Your task to perform on an android device: open app "Flipkart Online Shopping App" (install if not already installed) and enter user name: "fostered@gmail.com" and password: "negotiated" Image 0: 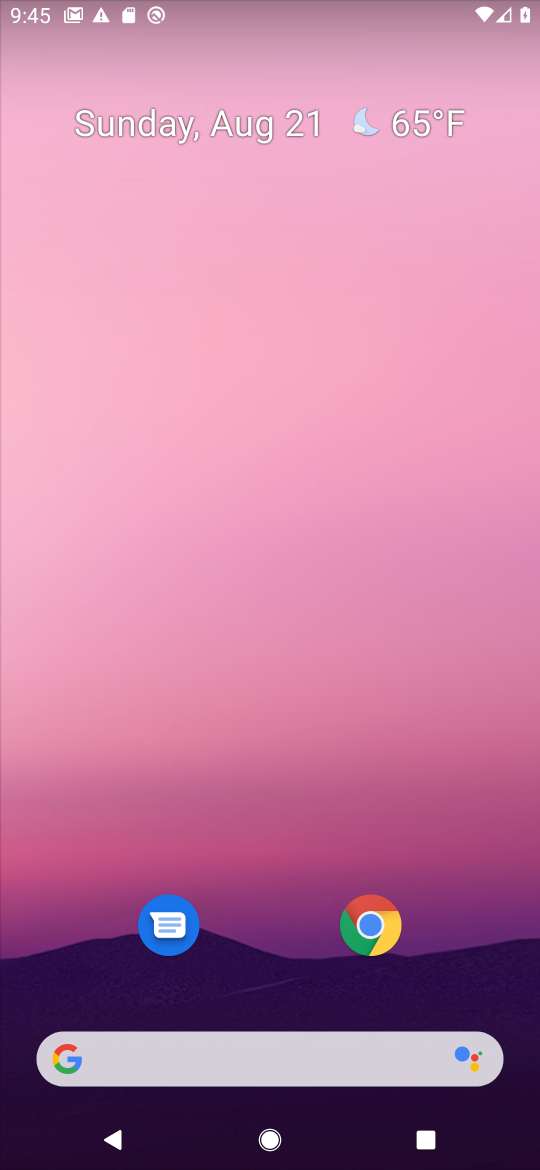
Step 0: drag from (289, 953) to (334, 79)
Your task to perform on an android device: open app "Flipkart Online Shopping App" (install if not already installed) and enter user name: "fostered@gmail.com" and password: "negotiated" Image 1: 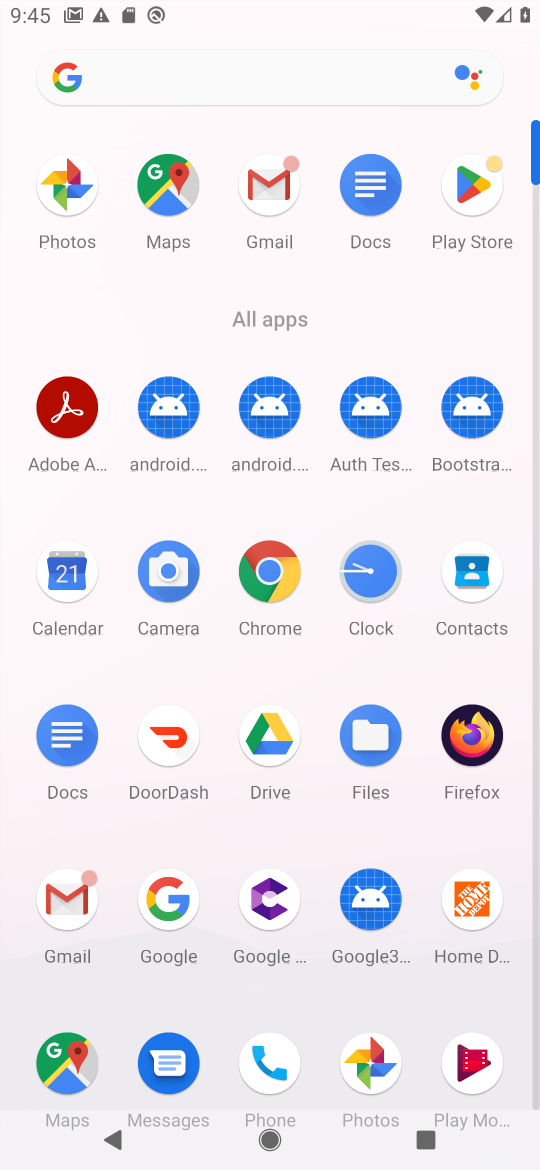
Step 1: click (475, 195)
Your task to perform on an android device: open app "Flipkart Online Shopping App" (install if not already installed) and enter user name: "fostered@gmail.com" and password: "negotiated" Image 2: 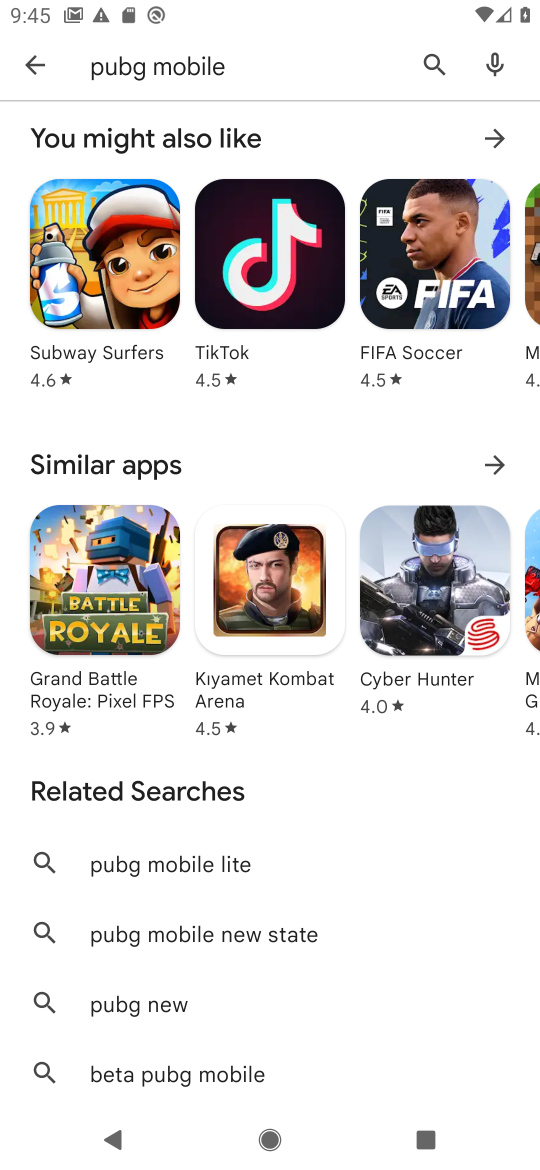
Step 2: click (434, 57)
Your task to perform on an android device: open app "Flipkart Online Shopping App" (install if not already installed) and enter user name: "fostered@gmail.com" and password: "negotiated" Image 3: 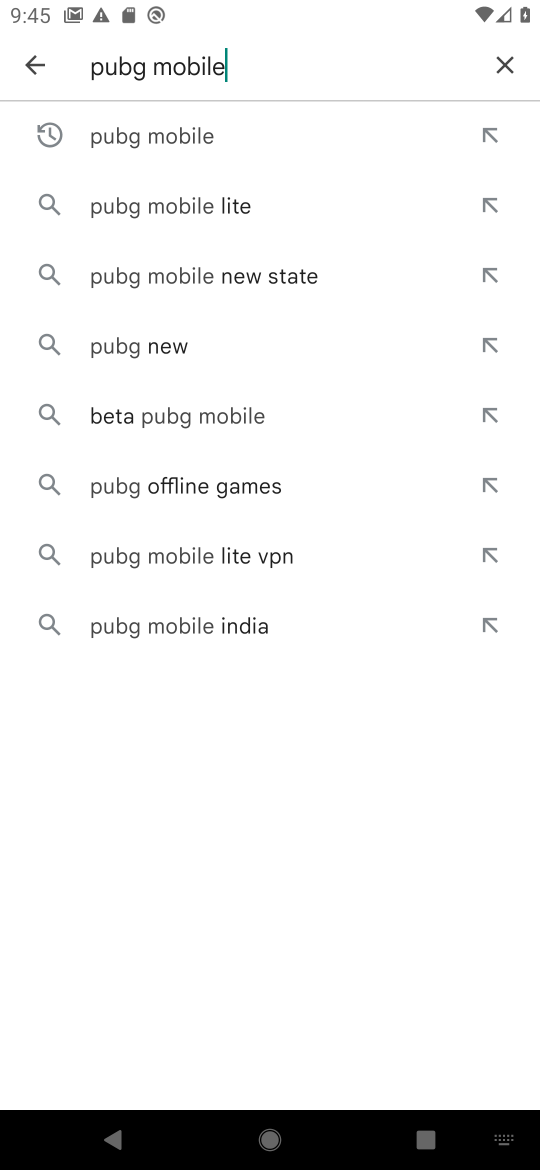
Step 3: click (504, 66)
Your task to perform on an android device: open app "Flipkart Online Shopping App" (install if not already installed) and enter user name: "fostered@gmail.com" and password: "negotiated" Image 4: 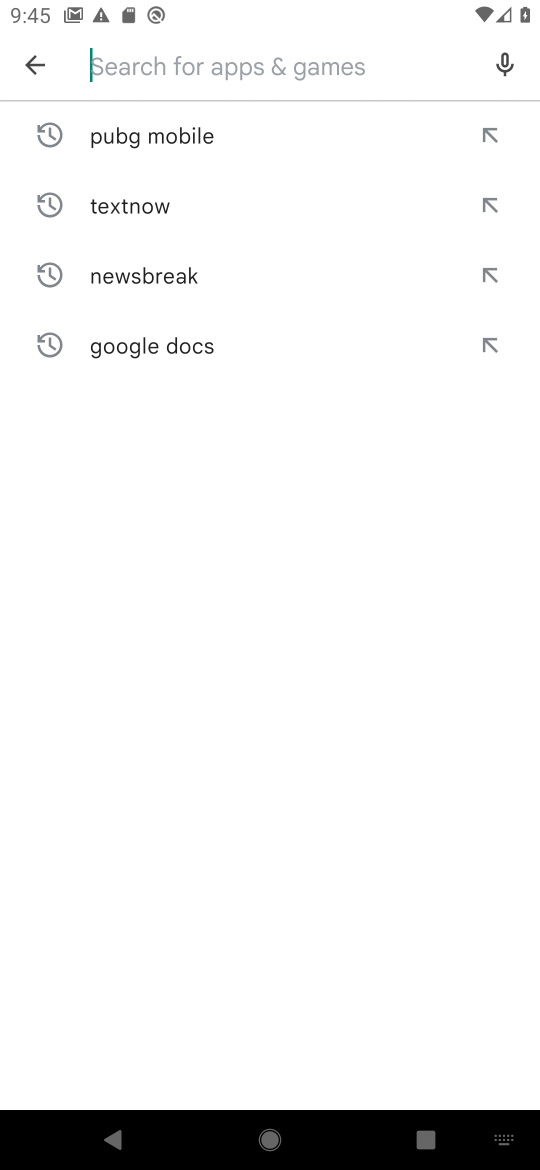
Step 4: click (222, 73)
Your task to perform on an android device: open app "Flipkart Online Shopping App" (install if not already installed) and enter user name: "fostered@gmail.com" and password: "negotiated" Image 5: 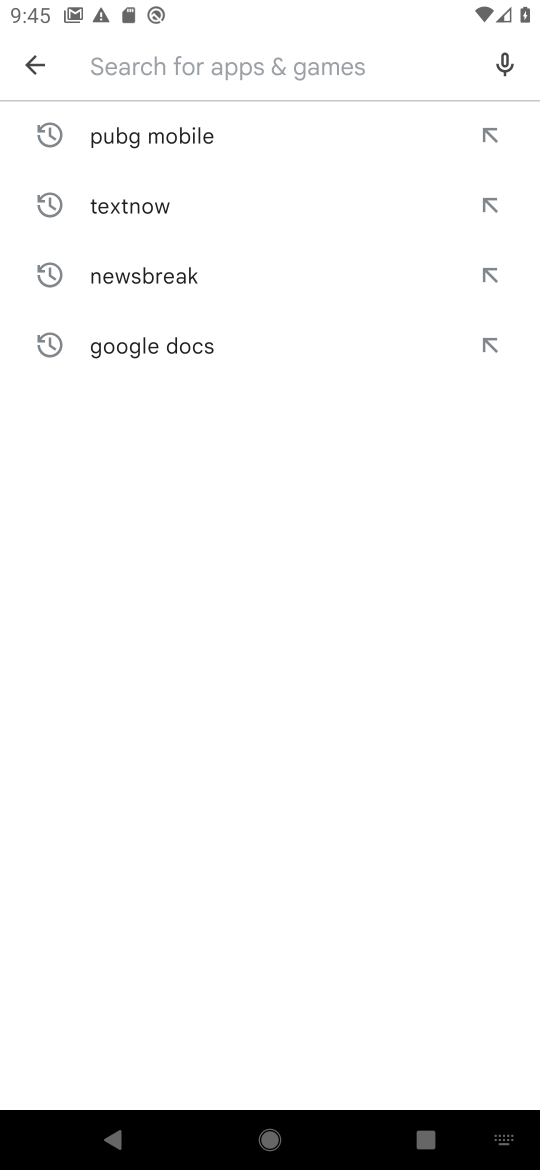
Step 5: type "Flipkart Online Shopping App"
Your task to perform on an android device: open app "Flipkart Online Shopping App" (install if not already installed) and enter user name: "fostered@gmail.com" and password: "negotiated" Image 6: 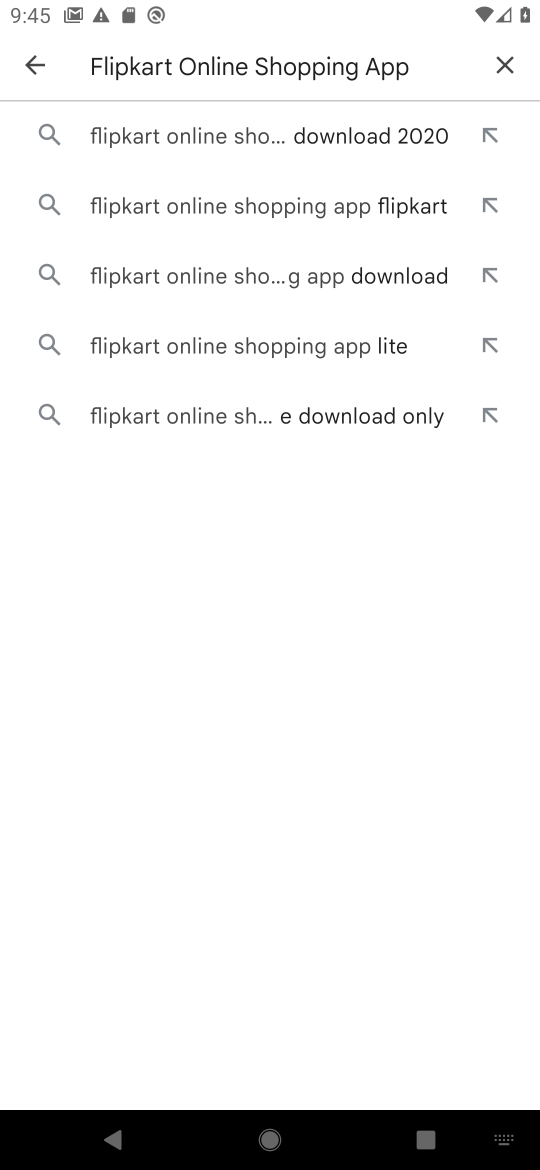
Step 6: press back button
Your task to perform on an android device: open app "Flipkart Online Shopping App" (install if not already installed) and enter user name: "fostered@gmail.com" and password: "negotiated" Image 7: 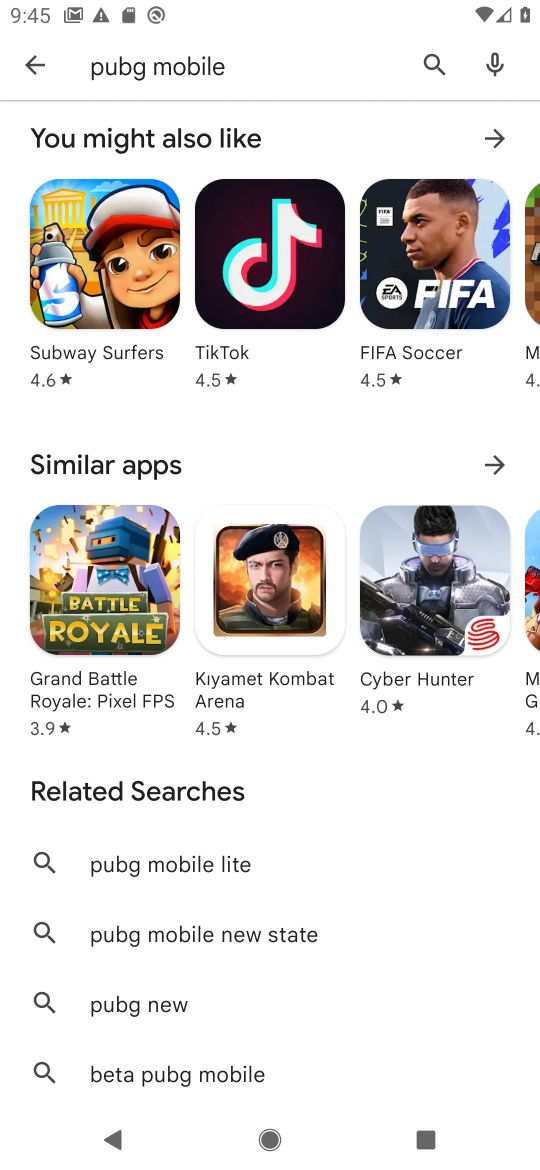
Step 7: press back button
Your task to perform on an android device: open app "Flipkart Online Shopping App" (install if not already installed) and enter user name: "fostered@gmail.com" and password: "negotiated" Image 8: 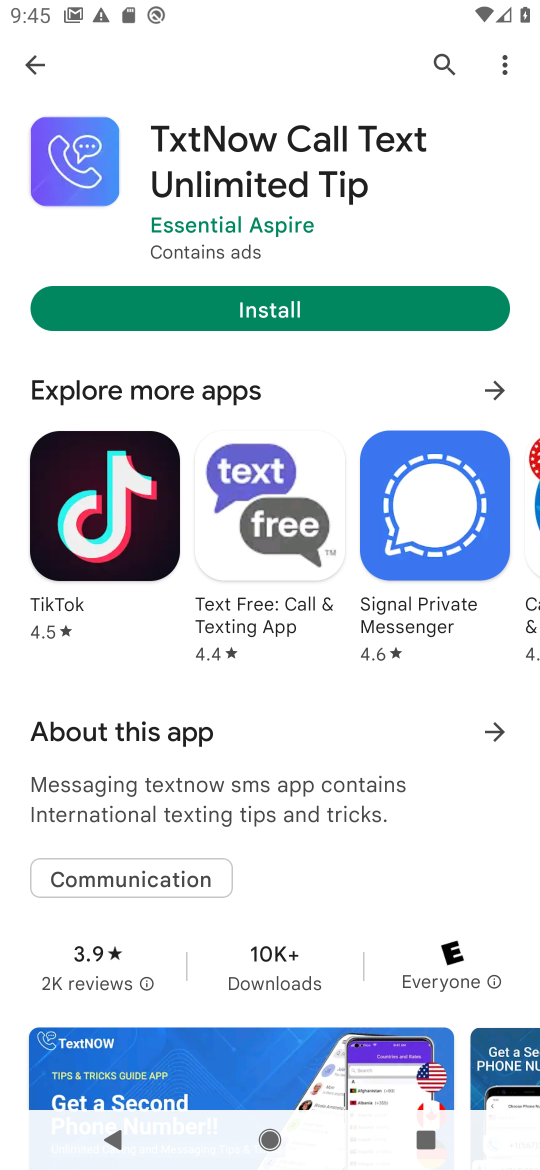
Step 8: press back button
Your task to perform on an android device: open app "Flipkart Online Shopping App" (install if not already installed) and enter user name: "fostered@gmail.com" and password: "negotiated" Image 9: 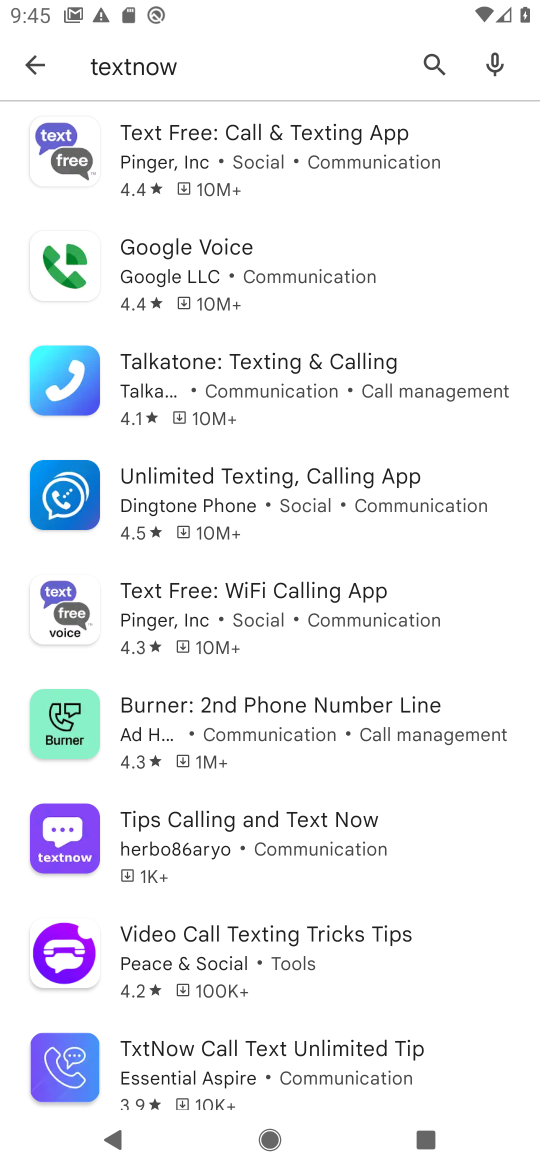
Step 9: click (434, 53)
Your task to perform on an android device: open app "Flipkart Online Shopping App" (install if not already installed) and enter user name: "fostered@gmail.com" and password: "negotiated" Image 10: 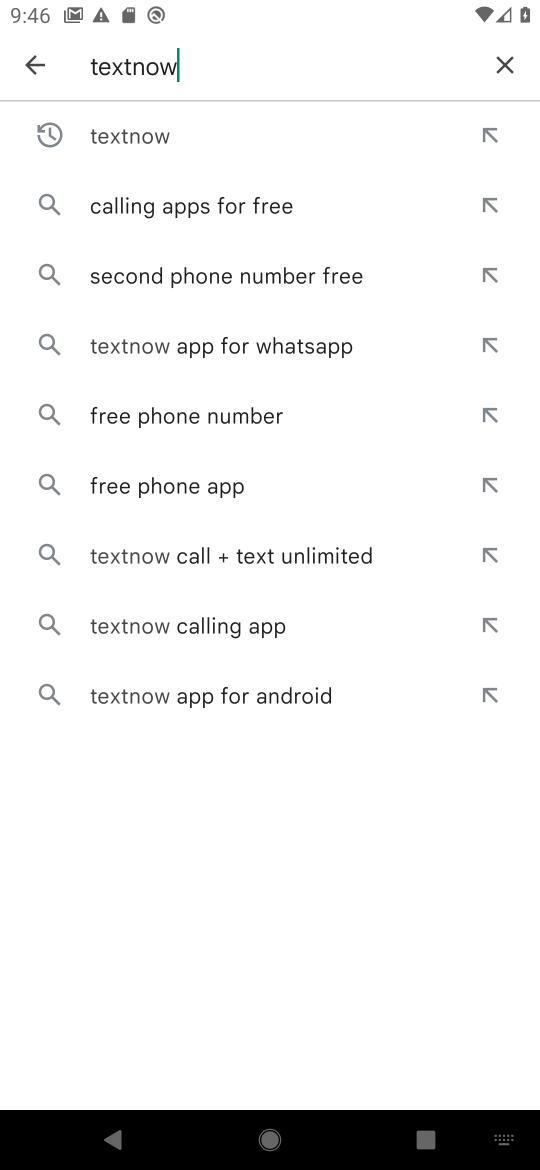
Step 10: click (487, 67)
Your task to perform on an android device: open app "Flipkart Online Shopping App" (install if not already installed) and enter user name: "fostered@gmail.com" and password: "negotiated" Image 11: 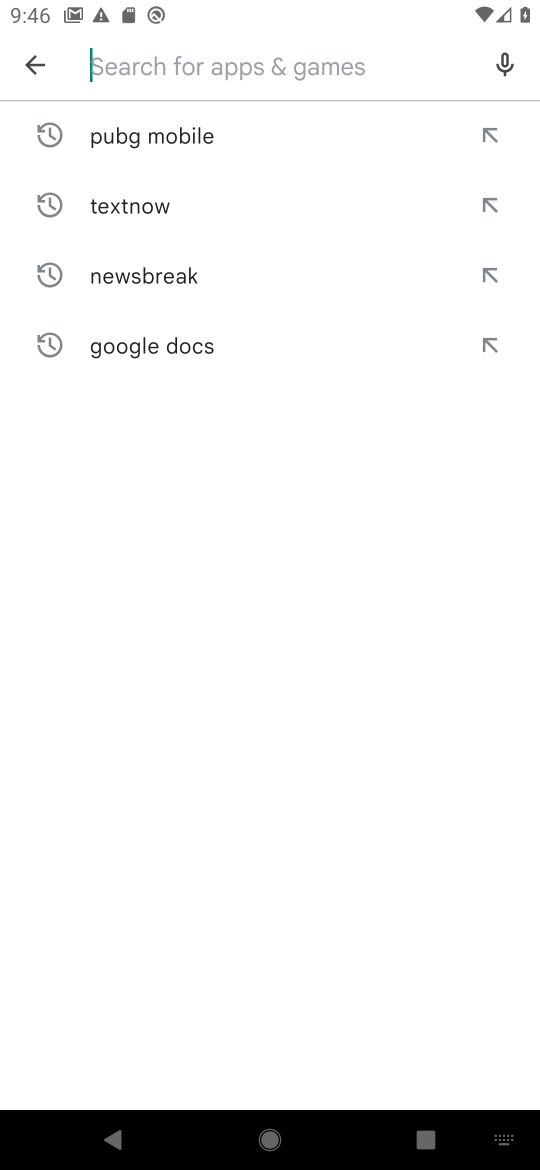
Step 11: click (172, 64)
Your task to perform on an android device: open app "Flipkart Online Shopping App" (install if not already installed) and enter user name: "fostered@gmail.com" and password: "negotiated" Image 12: 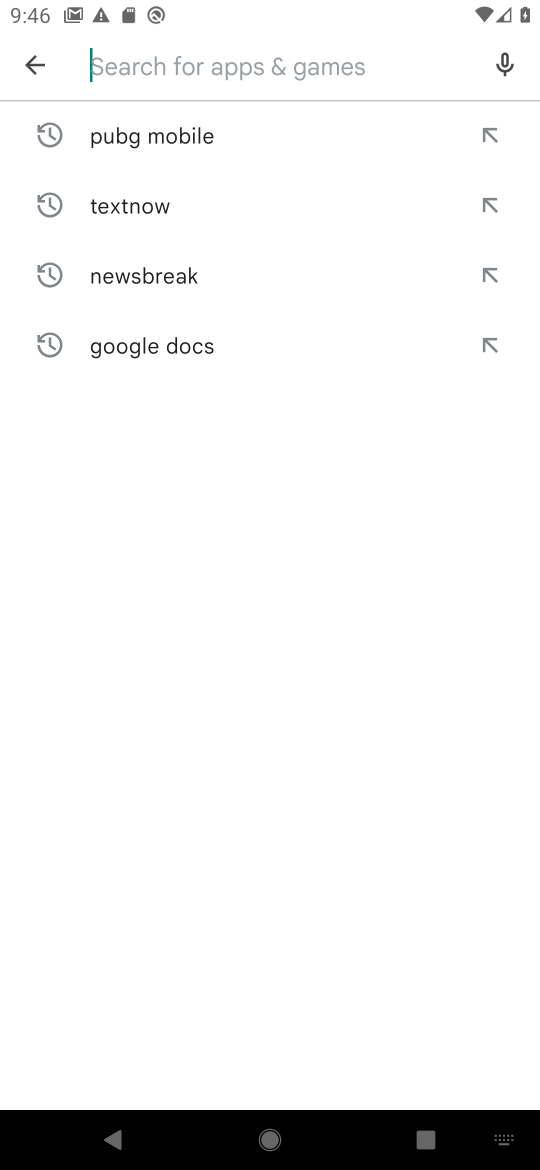
Step 12: type "Flipkart Online Shopping App"
Your task to perform on an android device: open app "Flipkart Online Shopping App" (install if not already installed) and enter user name: "fostered@gmail.com" and password: "negotiated" Image 13: 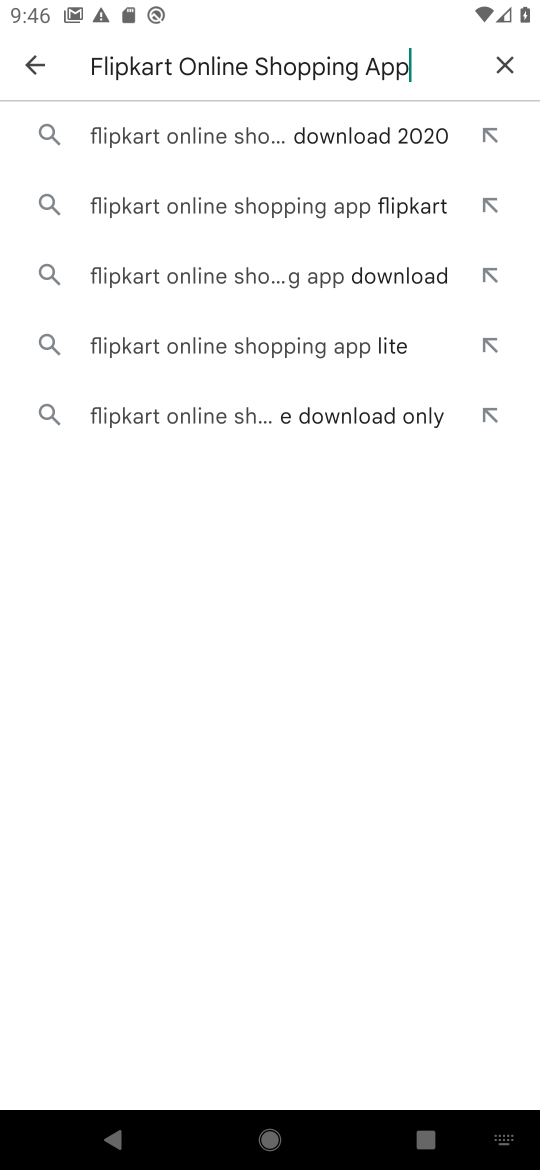
Step 13: click (303, 137)
Your task to perform on an android device: open app "Flipkart Online Shopping App" (install if not already installed) and enter user name: "fostered@gmail.com" and password: "negotiated" Image 14: 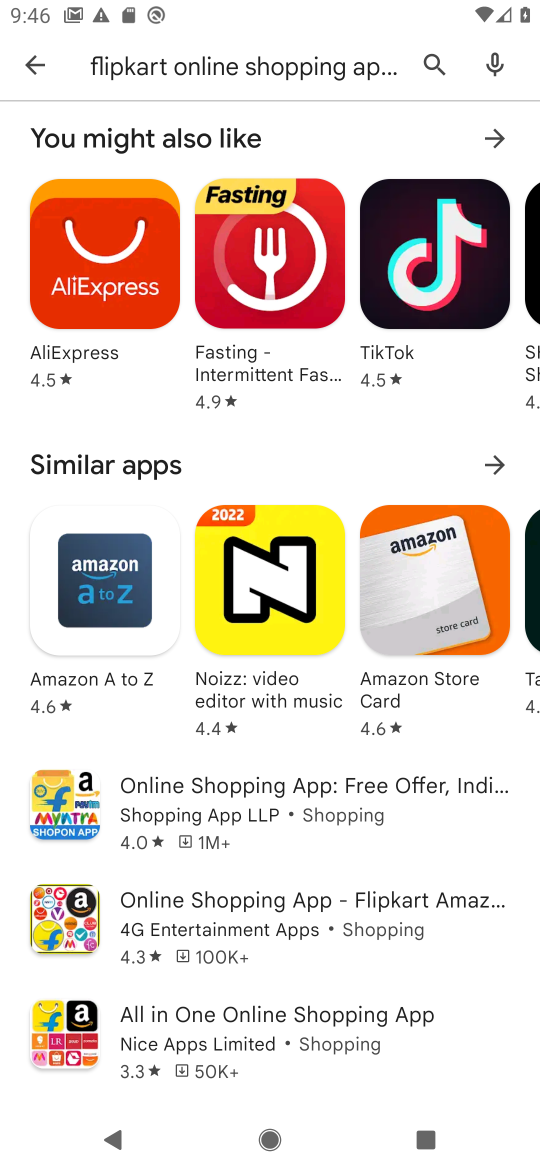
Step 14: drag from (286, 1012) to (322, 426)
Your task to perform on an android device: open app "Flipkart Online Shopping App" (install if not already installed) and enter user name: "fostered@gmail.com" and password: "negotiated" Image 15: 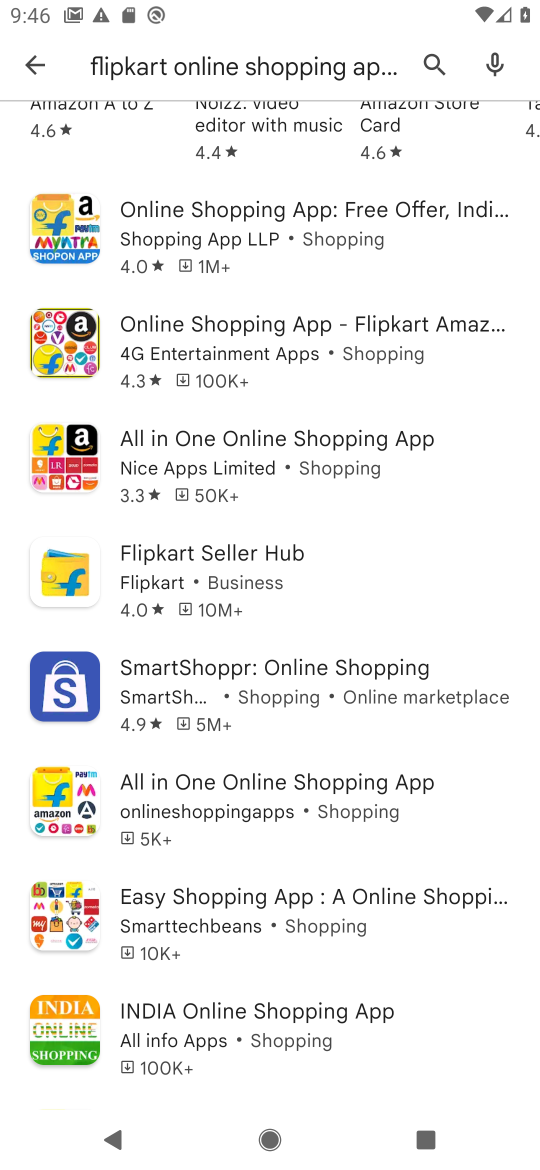
Step 15: click (439, 67)
Your task to perform on an android device: open app "Flipkart Online Shopping App" (install if not already installed) and enter user name: "fostered@gmail.com" and password: "negotiated" Image 16: 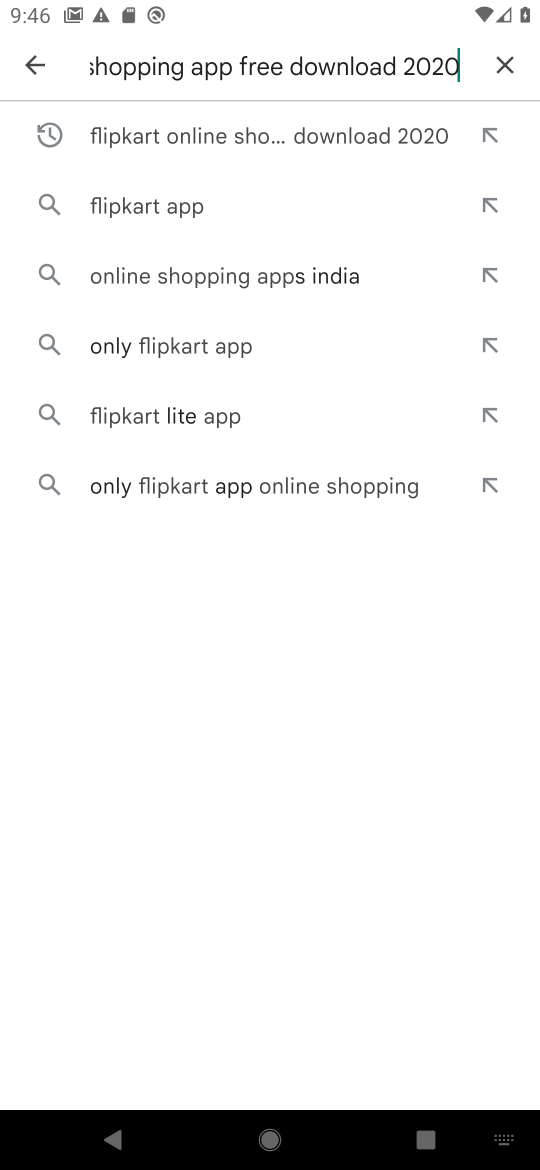
Step 16: click (496, 56)
Your task to perform on an android device: open app "Flipkart Online Shopping App" (install if not already installed) and enter user name: "fostered@gmail.com" and password: "negotiated" Image 17: 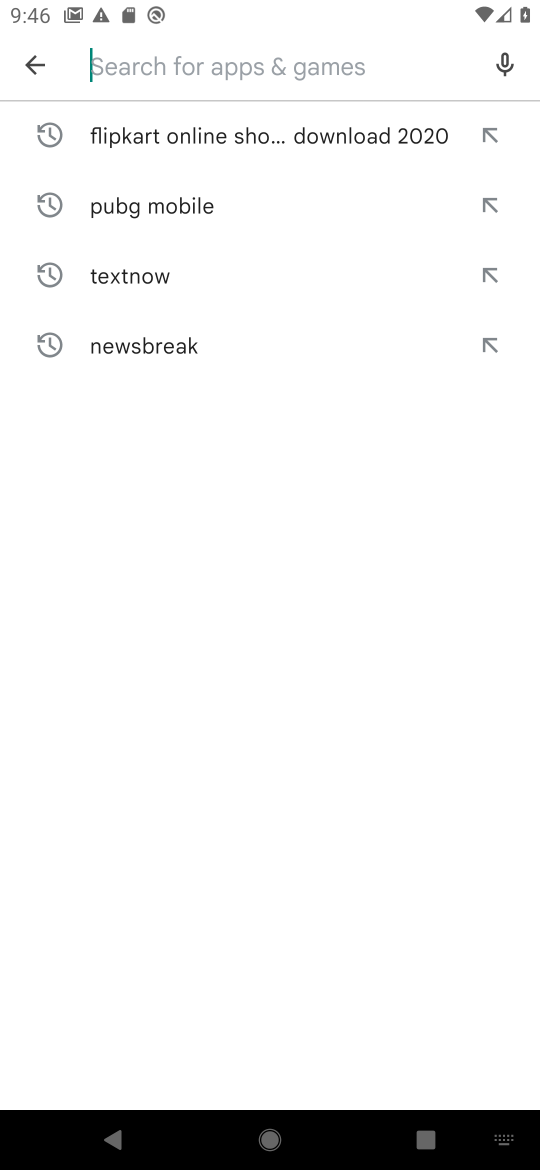
Step 17: click (207, 68)
Your task to perform on an android device: open app "Flipkart Online Shopping App" (install if not already installed) and enter user name: "fostered@gmail.com" and password: "negotiated" Image 18: 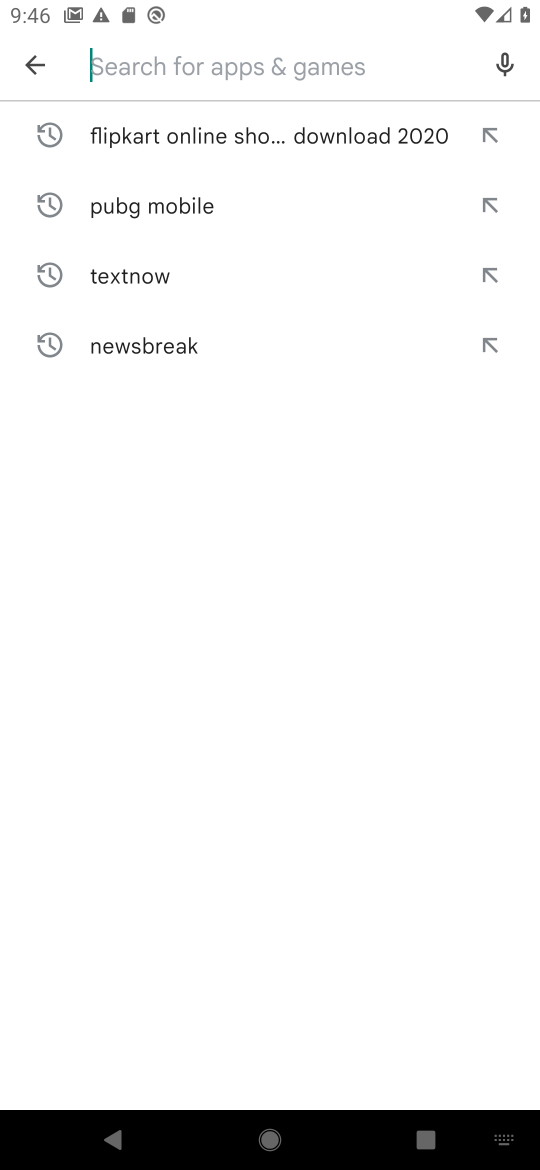
Step 18: type "flipkart"
Your task to perform on an android device: open app "Flipkart Online Shopping App" (install if not already installed) and enter user name: "fostered@gmail.com" and password: "negotiated" Image 19: 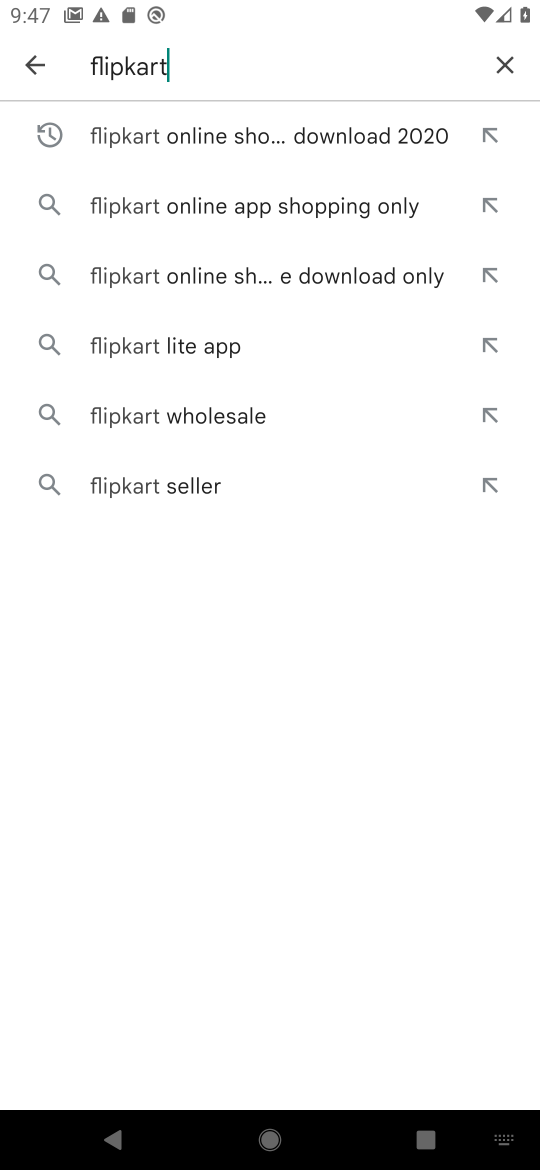
Step 19: click (220, 203)
Your task to perform on an android device: open app "Flipkart Online Shopping App" (install if not already installed) and enter user name: "fostered@gmail.com" and password: "negotiated" Image 20: 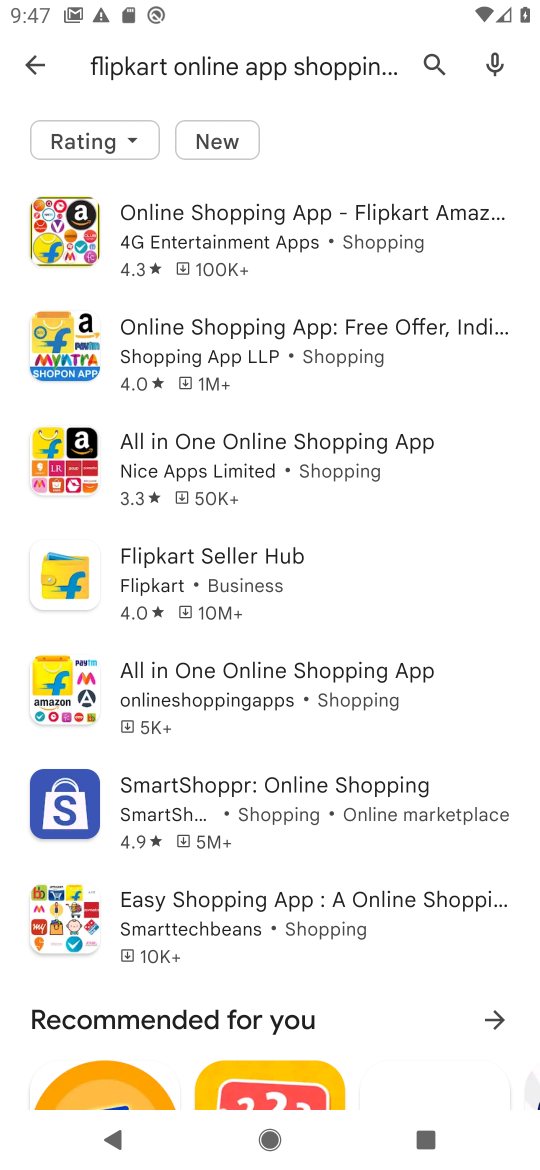
Step 20: task complete